Your task to perform on an android device: change the clock display to analog Image 0: 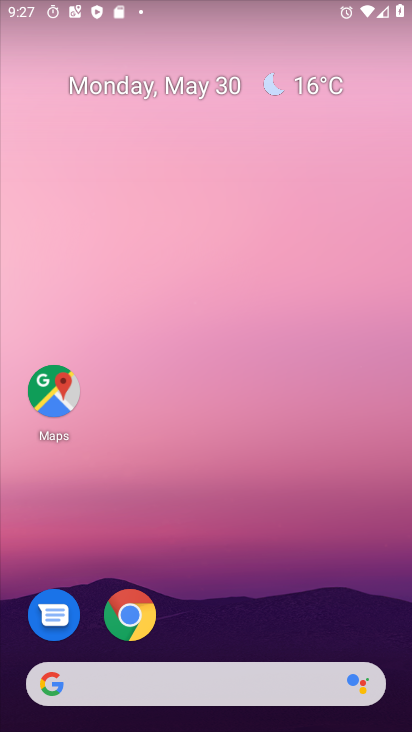
Step 0: drag from (342, 611) to (354, 87)
Your task to perform on an android device: change the clock display to analog Image 1: 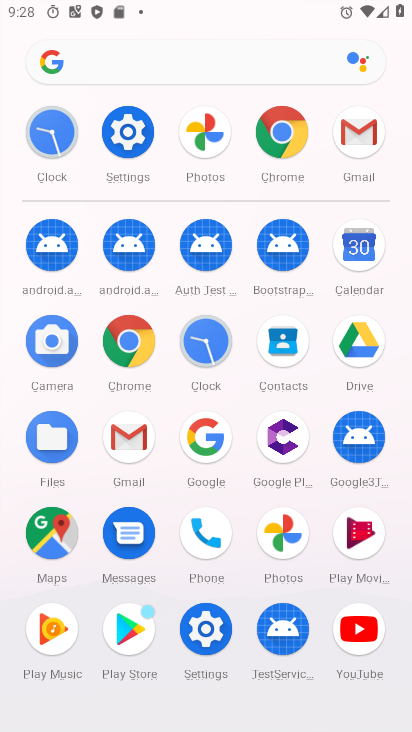
Step 1: click (35, 138)
Your task to perform on an android device: change the clock display to analog Image 2: 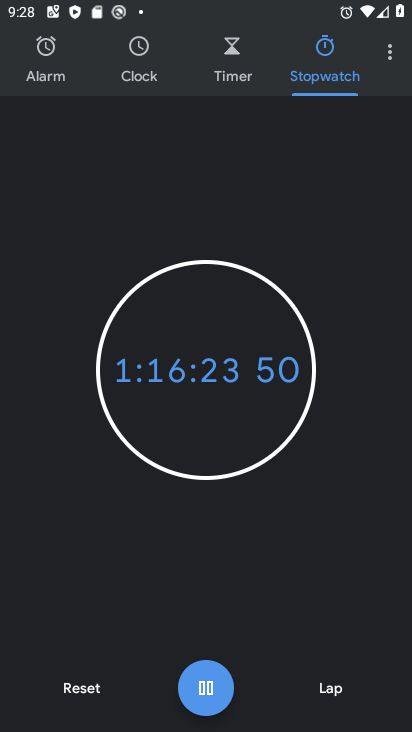
Step 2: click (401, 49)
Your task to perform on an android device: change the clock display to analog Image 3: 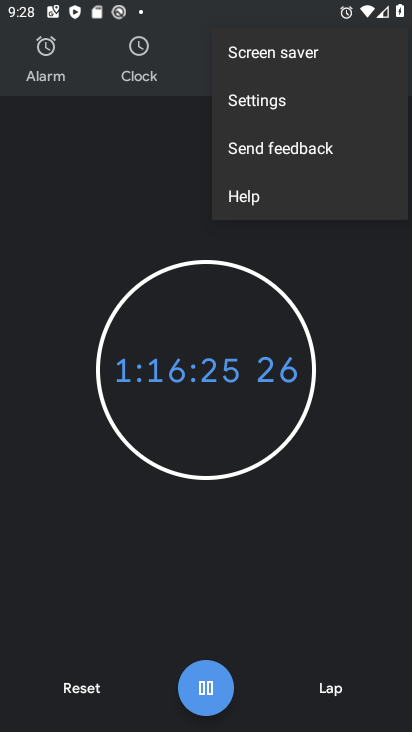
Step 3: click (278, 105)
Your task to perform on an android device: change the clock display to analog Image 4: 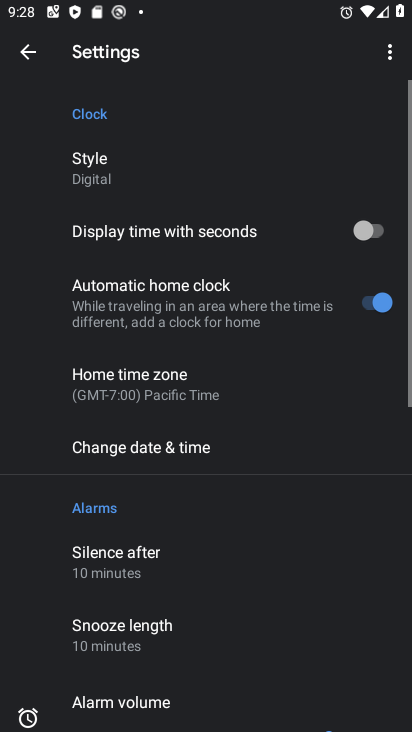
Step 4: click (108, 173)
Your task to perform on an android device: change the clock display to analog Image 5: 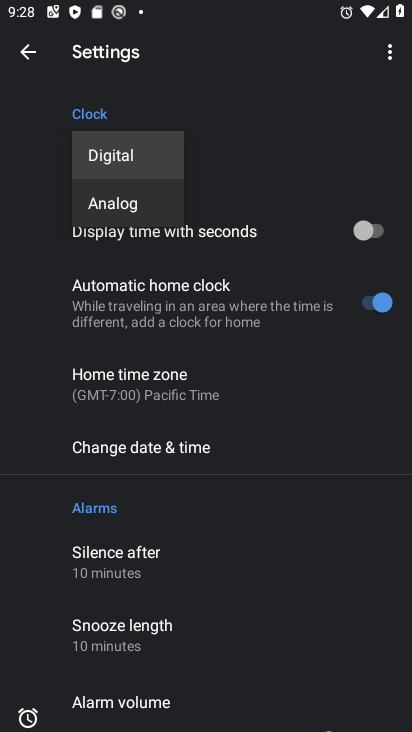
Step 5: click (114, 203)
Your task to perform on an android device: change the clock display to analog Image 6: 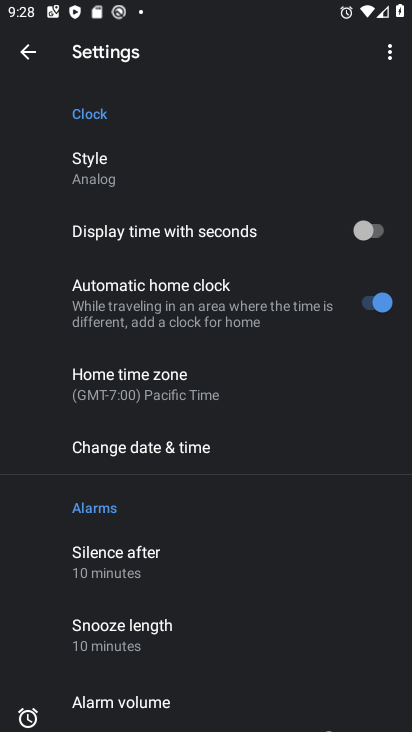
Step 6: task complete